Your task to perform on an android device: set default search engine in the chrome app Image 0: 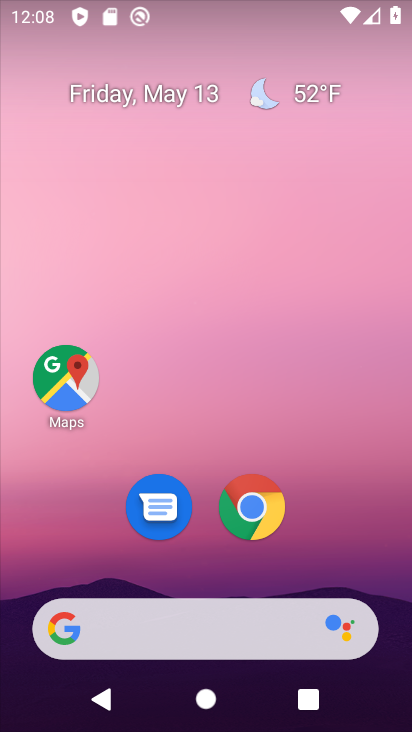
Step 0: click (255, 507)
Your task to perform on an android device: set default search engine in the chrome app Image 1: 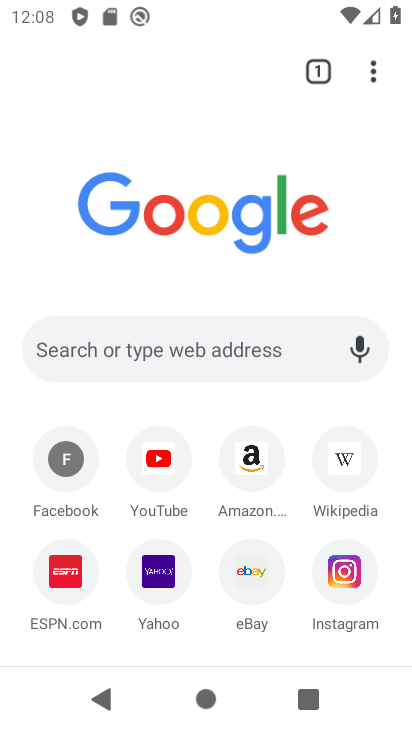
Step 1: click (374, 76)
Your task to perform on an android device: set default search engine in the chrome app Image 2: 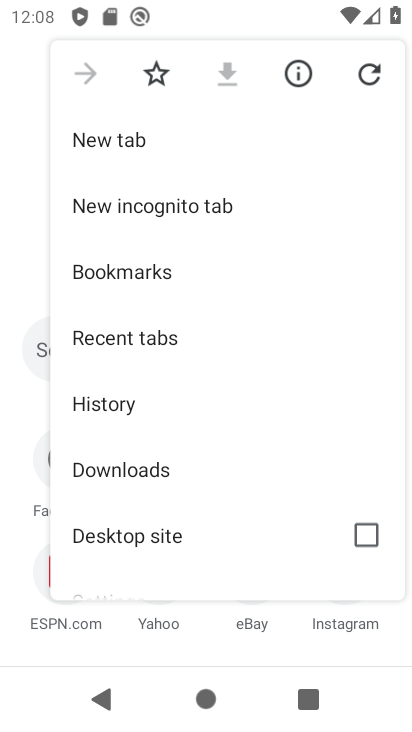
Step 2: drag from (146, 550) to (129, 215)
Your task to perform on an android device: set default search engine in the chrome app Image 3: 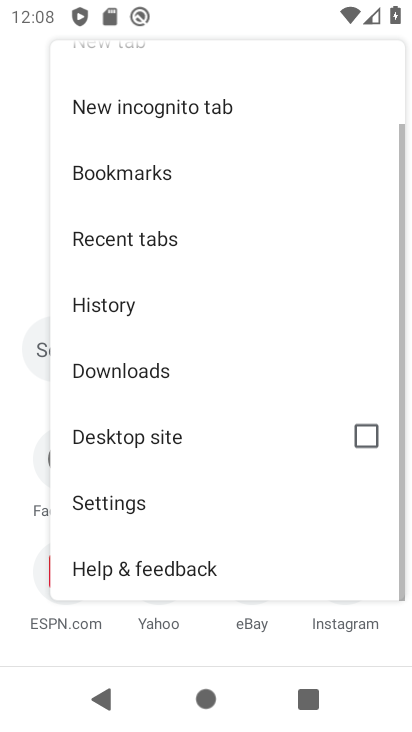
Step 3: click (114, 501)
Your task to perform on an android device: set default search engine in the chrome app Image 4: 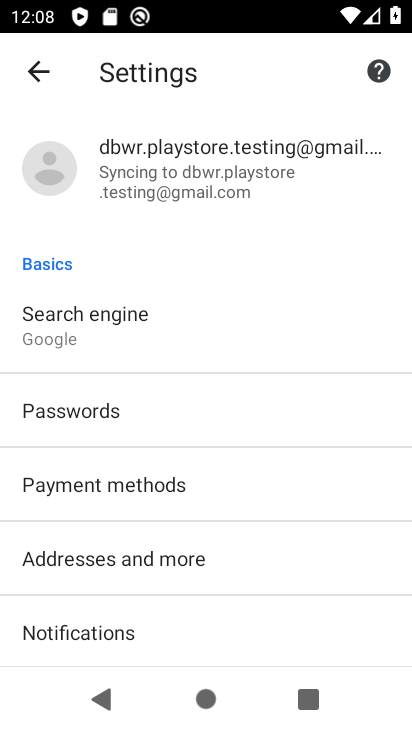
Step 4: click (68, 326)
Your task to perform on an android device: set default search engine in the chrome app Image 5: 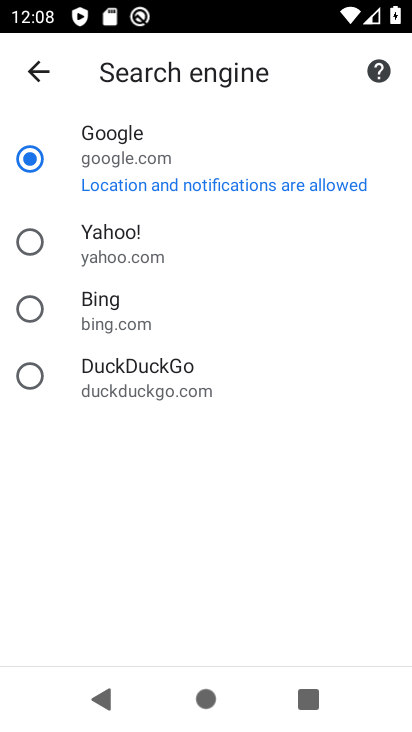
Step 5: task complete